Your task to perform on an android device: Search for vegetarian restaurants on Maps Image 0: 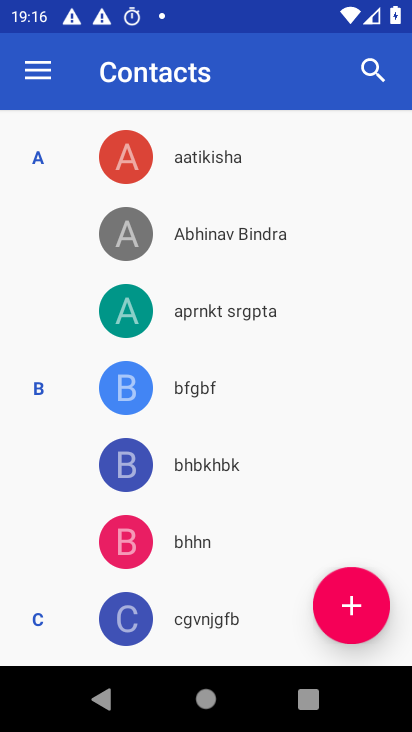
Step 0: press home button
Your task to perform on an android device: Search for vegetarian restaurants on Maps Image 1: 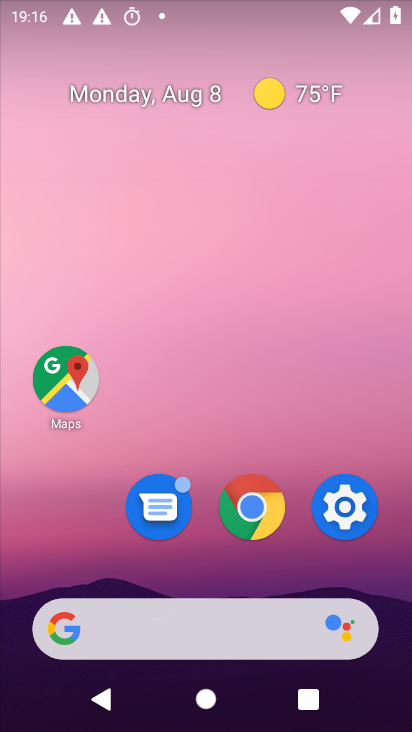
Step 1: drag from (253, 650) to (214, 204)
Your task to perform on an android device: Search for vegetarian restaurants on Maps Image 2: 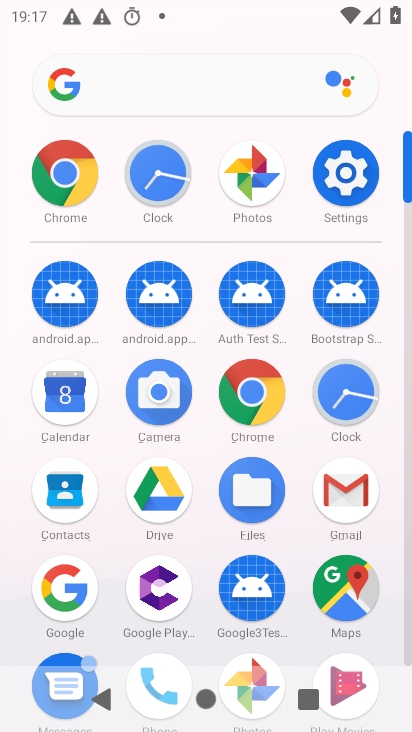
Step 2: click (341, 578)
Your task to perform on an android device: Search for vegetarian restaurants on Maps Image 3: 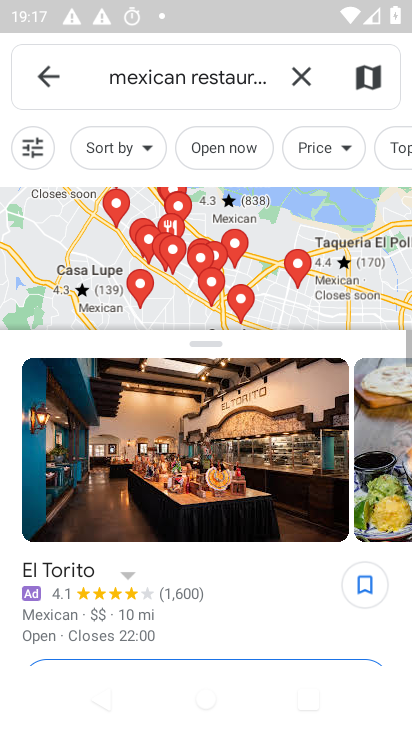
Step 3: click (302, 81)
Your task to perform on an android device: Search for vegetarian restaurants on Maps Image 4: 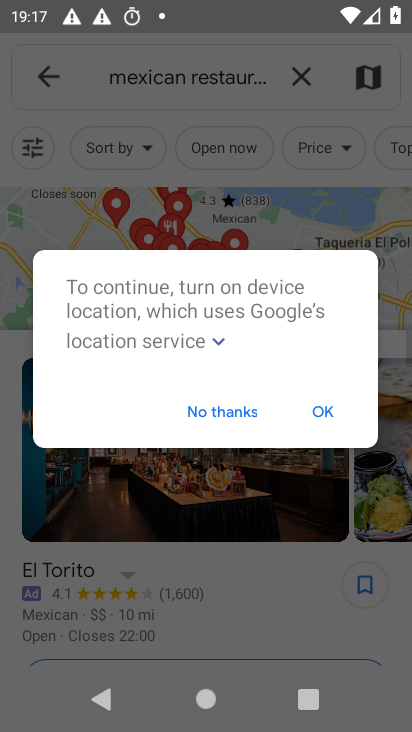
Step 4: click (201, 404)
Your task to perform on an android device: Search for vegetarian restaurants on Maps Image 5: 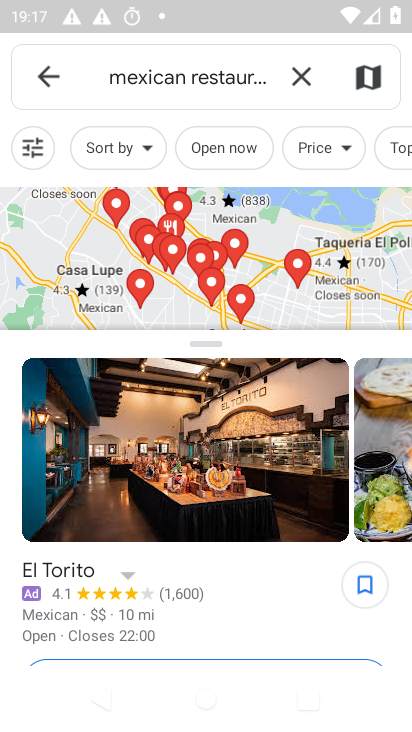
Step 5: click (309, 69)
Your task to perform on an android device: Search for vegetarian restaurants on Maps Image 6: 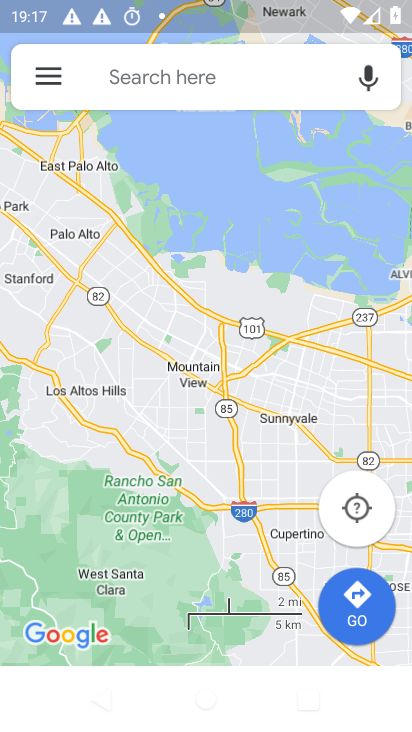
Step 6: click (168, 87)
Your task to perform on an android device: Search for vegetarian restaurants on Maps Image 7: 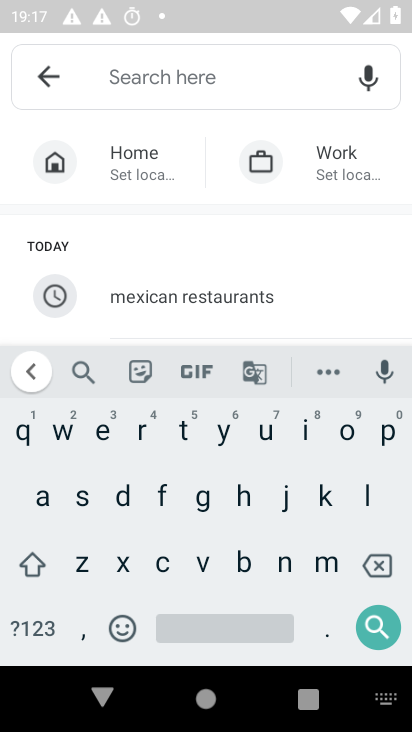
Step 7: click (203, 565)
Your task to perform on an android device: Search for vegetarian restaurants on Maps Image 8: 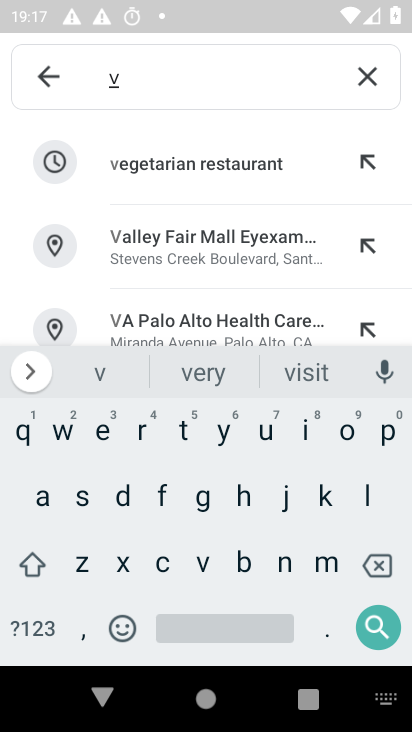
Step 8: click (223, 164)
Your task to perform on an android device: Search for vegetarian restaurants on Maps Image 9: 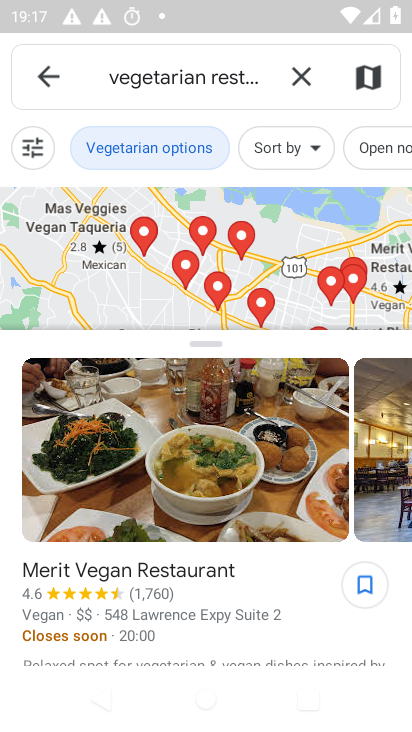
Step 9: task complete